Your task to perform on an android device: Go to network settings Image 0: 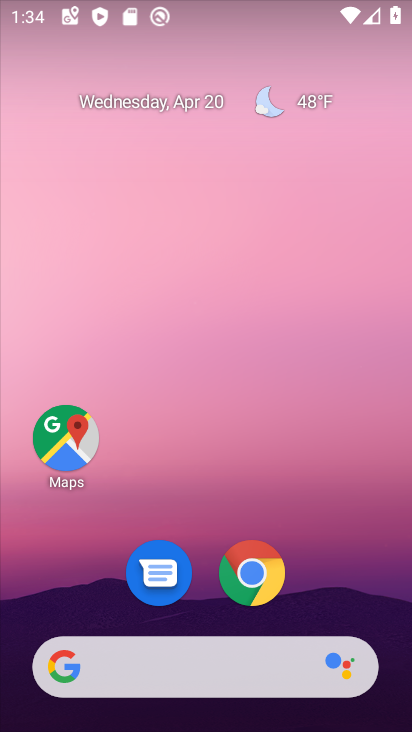
Step 0: drag from (167, 632) to (253, 117)
Your task to perform on an android device: Go to network settings Image 1: 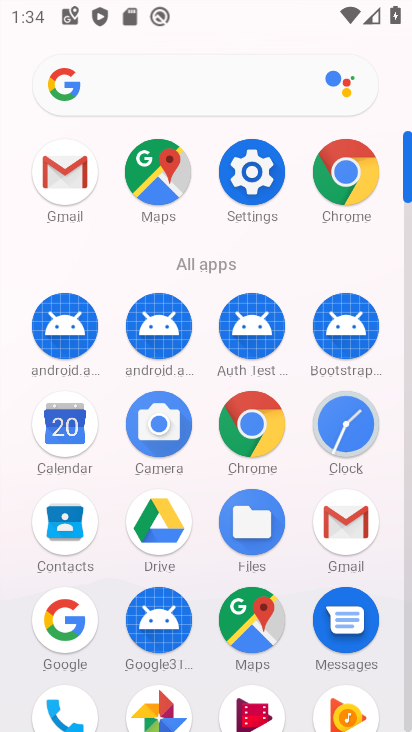
Step 1: click (253, 176)
Your task to perform on an android device: Go to network settings Image 2: 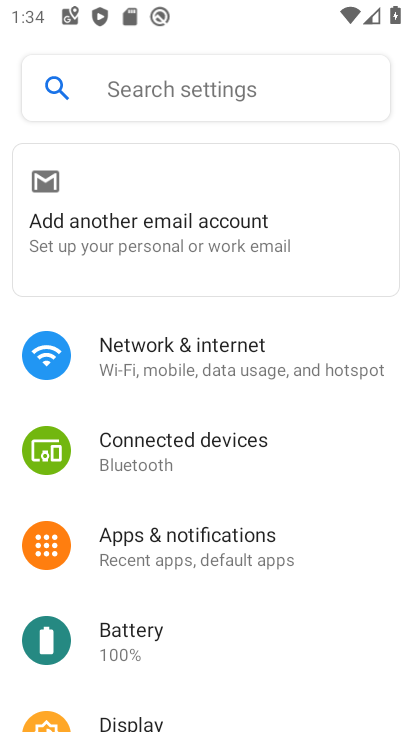
Step 2: click (187, 348)
Your task to perform on an android device: Go to network settings Image 3: 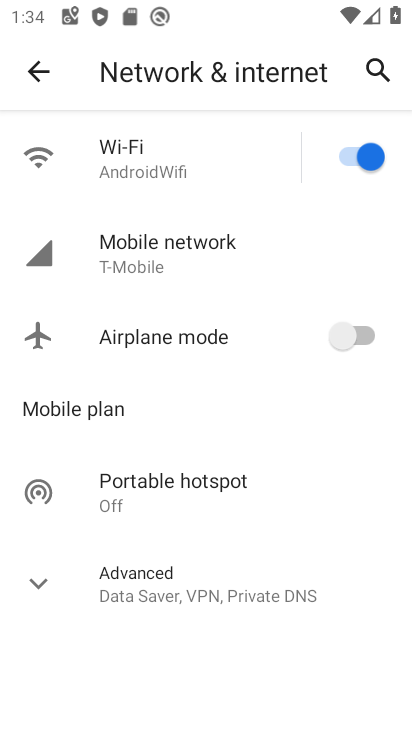
Step 3: task complete